Your task to perform on an android device: What's the weather going to be this weekend? Image 0: 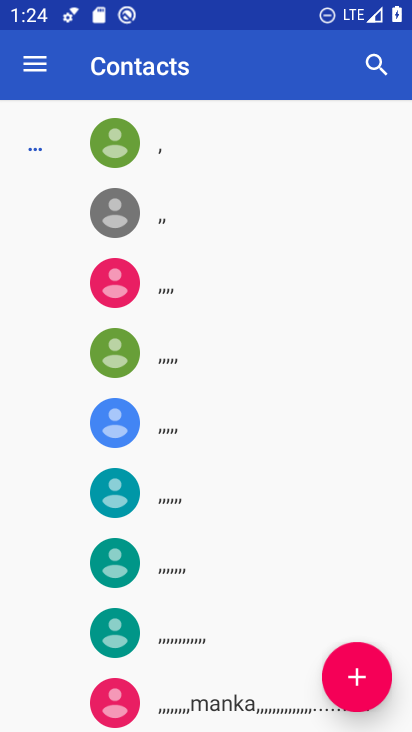
Step 0: press home button
Your task to perform on an android device: What's the weather going to be this weekend? Image 1: 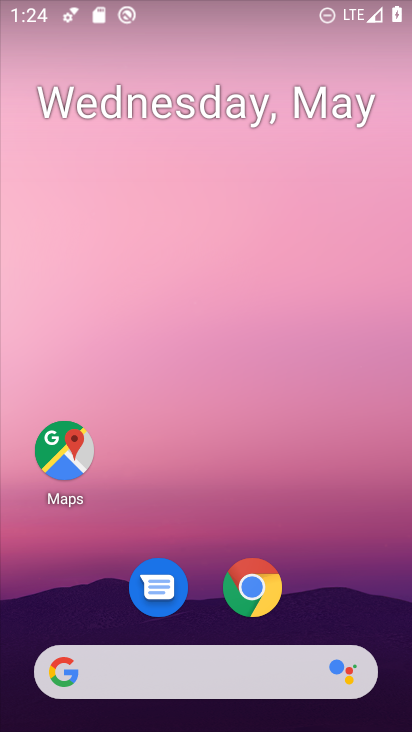
Step 1: click (201, 136)
Your task to perform on an android device: What's the weather going to be this weekend? Image 2: 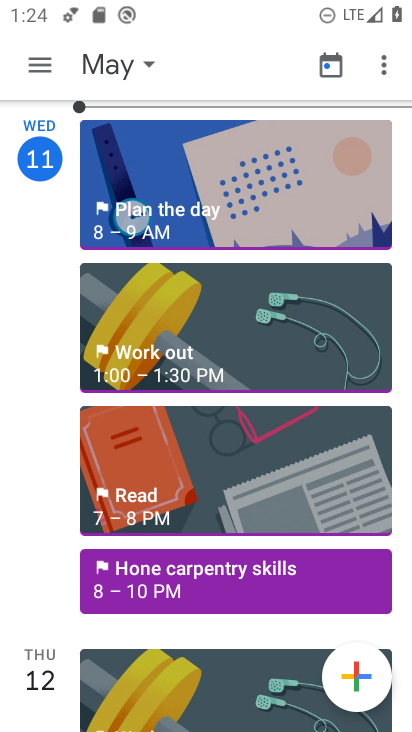
Step 2: press home button
Your task to perform on an android device: What's the weather going to be this weekend? Image 3: 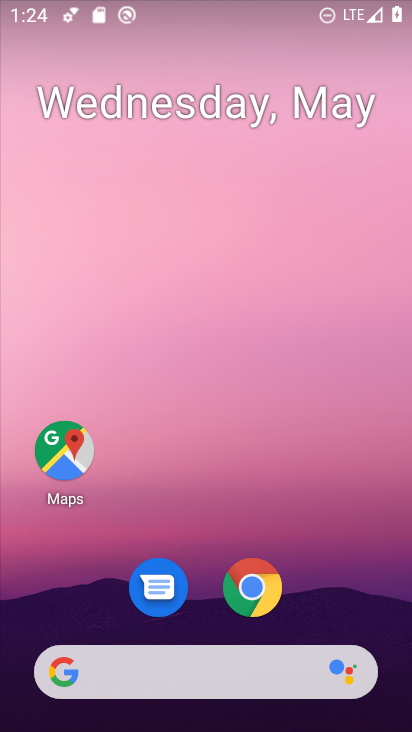
Step 3: drag from (319, 614) to (242, 289)
Your task to perform on an android device: What's the weather going to be this weekend? Image 4: 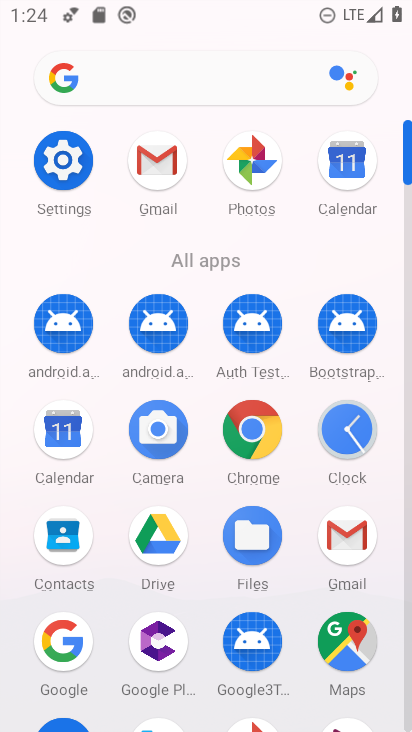
Step 4: click (63, 204)
Your task to perform on an android device: What's the weather going to be this weekend? Image 5: 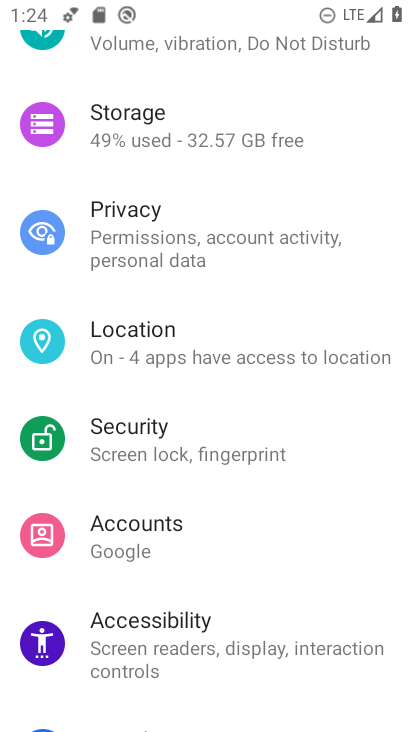
Step 5: click (273, 661)
Your task to perform on an android device: What's the weather going to be this weekend? Image 6: 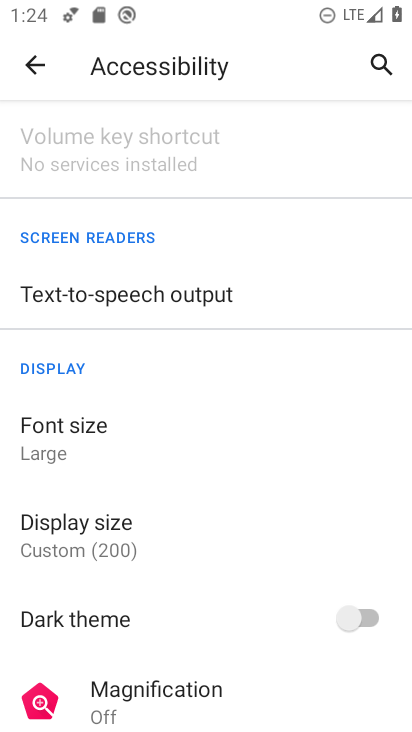
Step 6: task complete